Your task to perform on an android device: Open Google Maps and go to "Timeline" Image 0: 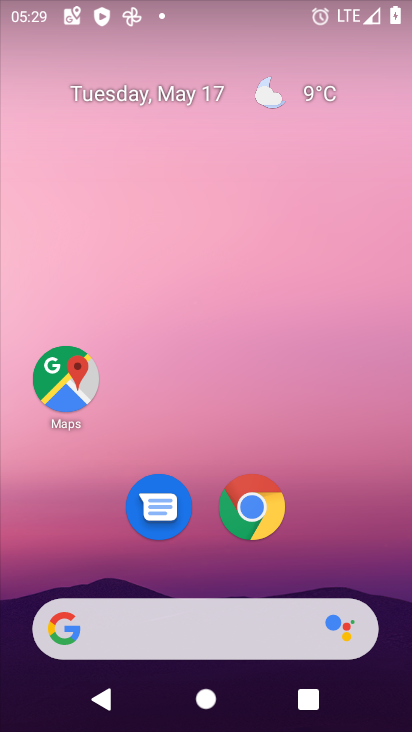
Step 0: click (69, 382)
Your task to perform on an android device: Open Google Maps and go to "Timeline" Image 1: 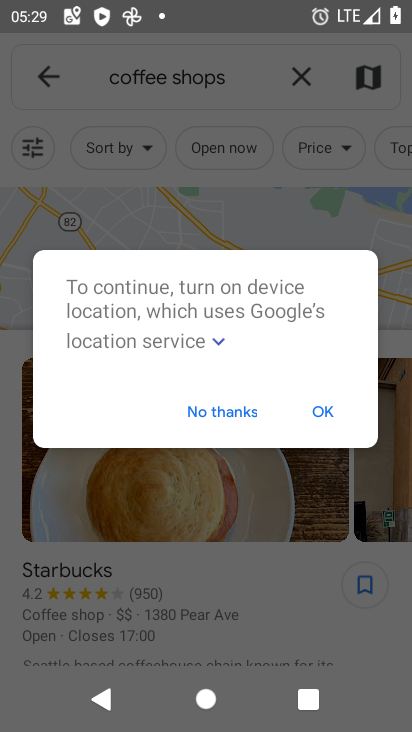
Step 1: click (325, 410)
Your task to perform on an android device: Open Google Maps and go to "Timeline" Image 2: 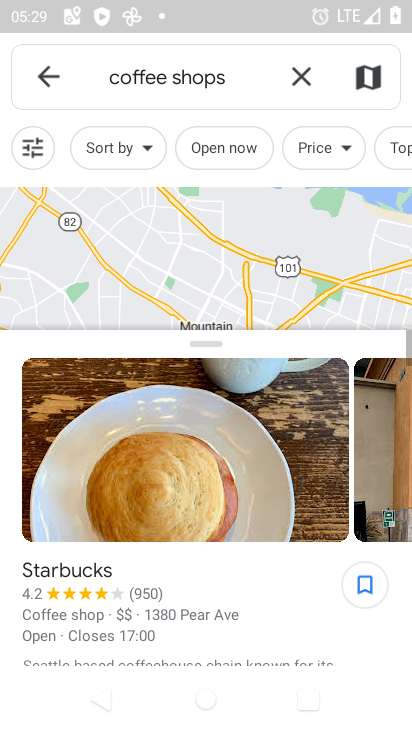
Step 2: click (302, 83)
Your task to perform on an android device: Open Google Maps and go to "Timeline" Image 3: 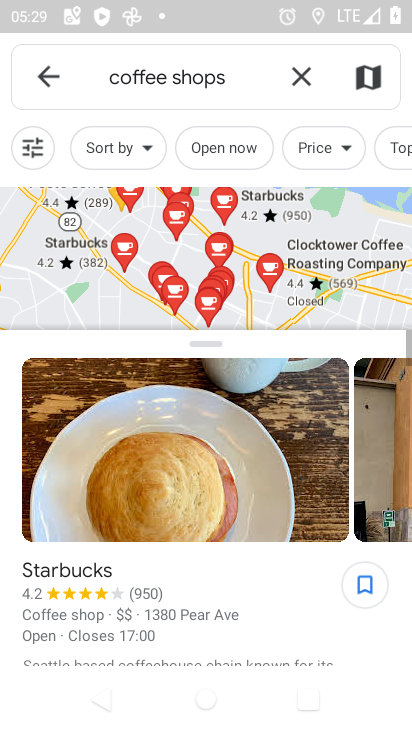
Step 3: click (47, 72)
Your task to perform on an android device: Open Google Maps and go to "Timeline" Image 4: 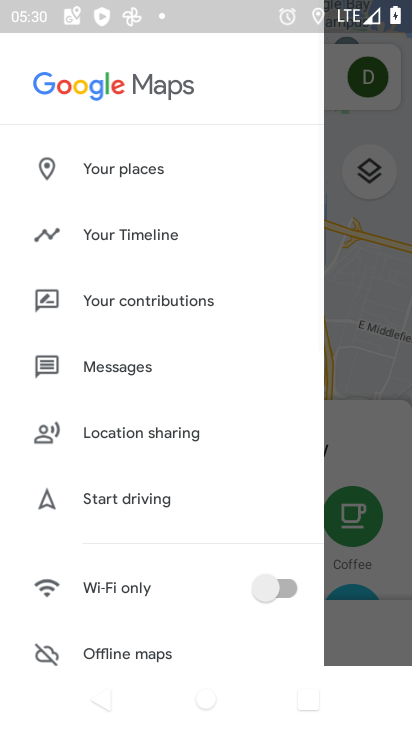
Step 4: click (138, 226)
Your task to perform on an android device: Open Google Maps and go to "Timeline" Image 5: 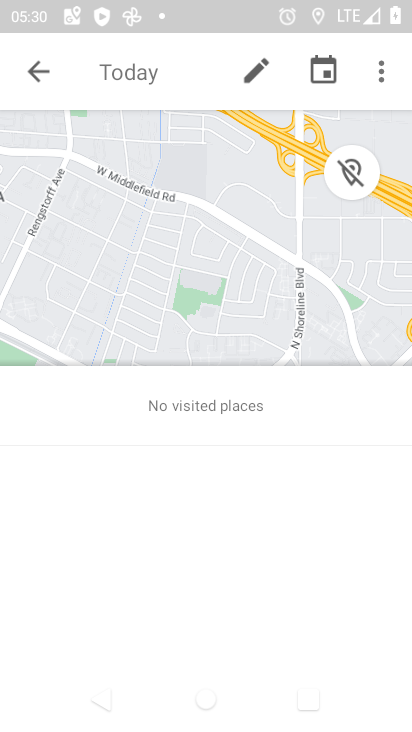
Step 5: task complete